Your task to perform on an android device: Go to CNN.com Image 0: 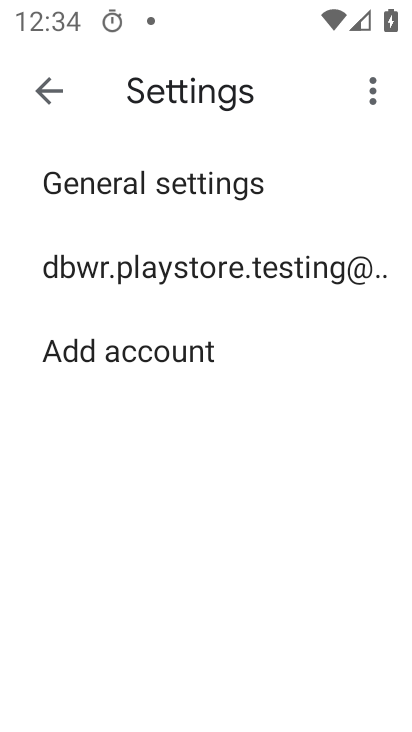
Step 0: press home button
Your task to perform on an android device: Go to CNN.com Image 1: 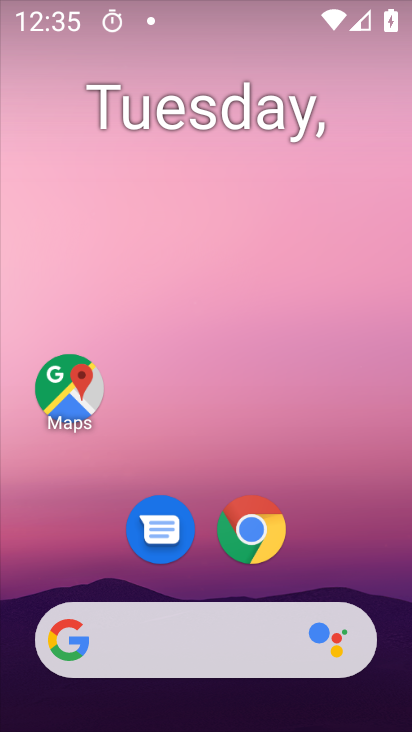
Step 1: click (289, 531)
Your task to perform on an android device: Go to CNN.com Image 2: 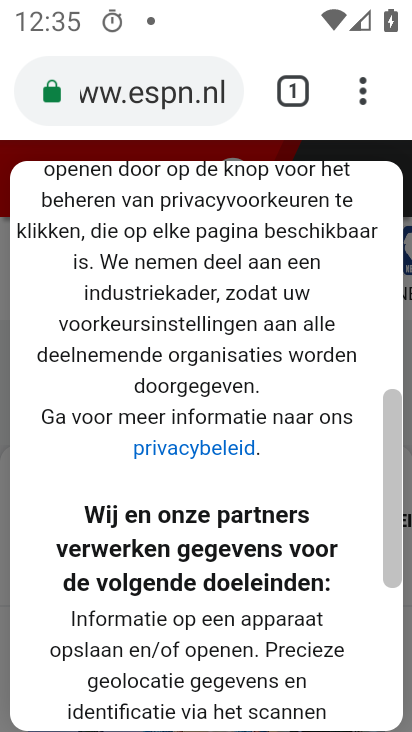
Step 2: click (188, 81)
Your task to perform on an android device: Go to CNN.com Image 3: 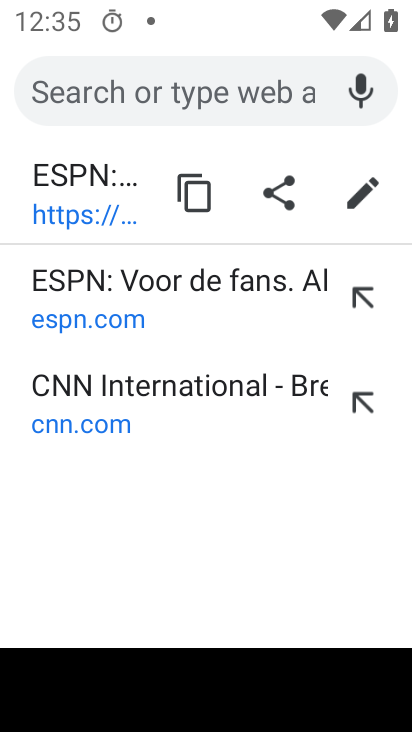
Step 3: click (117, 407)
Your task to perform on an android device: Go to CNN.com Image 4: 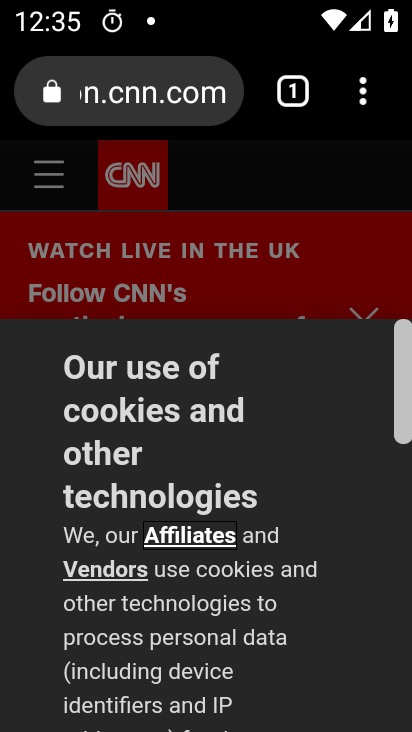
Step 4: task complete